Your task to perform on an android device: turn on wifi Image 0: 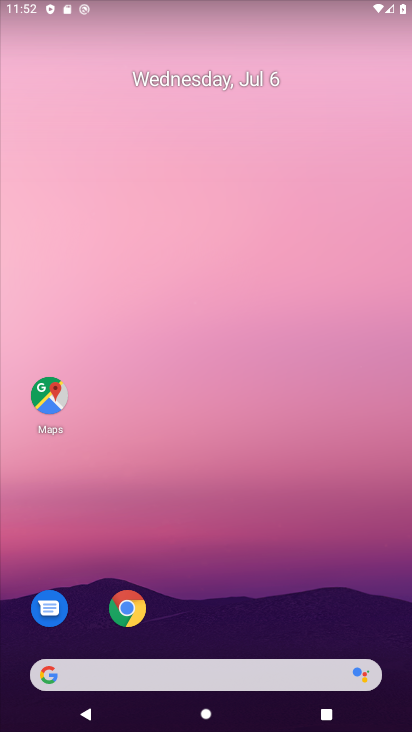
Step 0: drag from (234, 560) to (175, 209)
Your task to perform on an android device: turn on wifi Image 1: 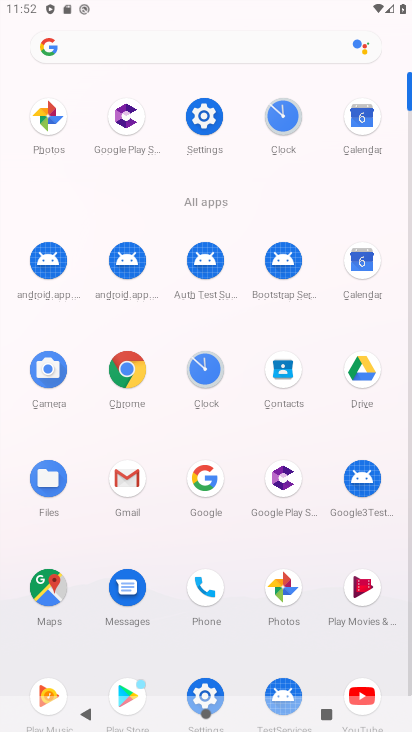
Step 1: click (199, 114)
Your task to perform on an android device: turn on wifi Image 2: 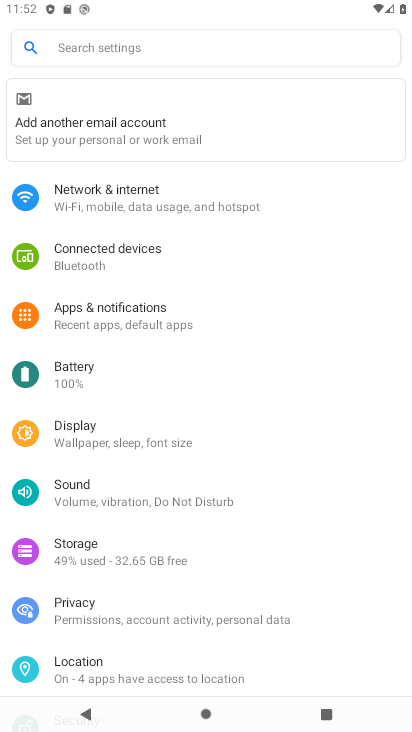
Step 2: click (110, 188)
Your task to perform on an android device: turn on wifi Image 3: 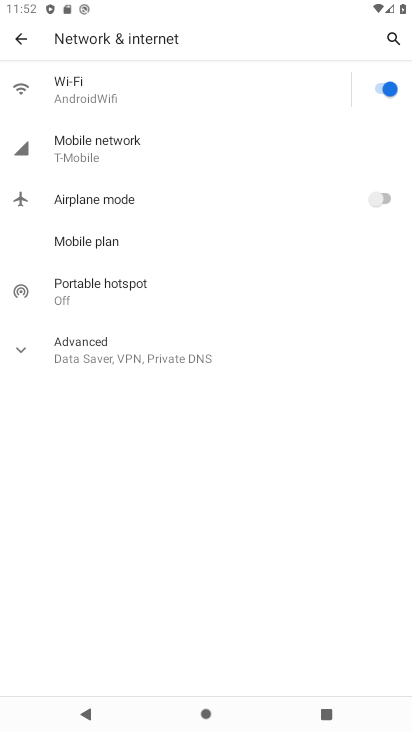
Step 3: click (101, 75)
Your task to perform on an android device: turn on wifi Image 4: 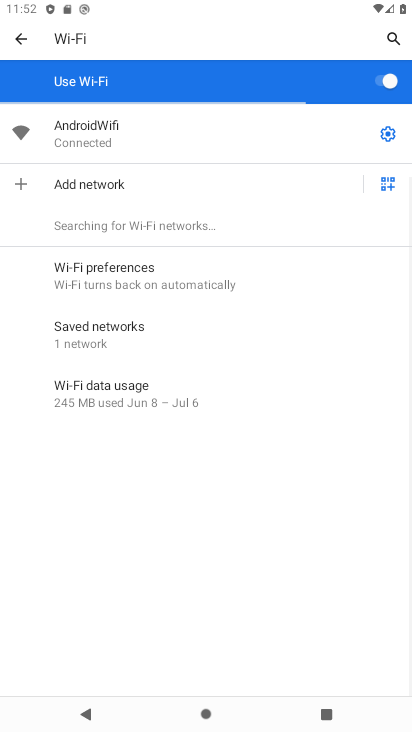
Step 4: task complete